Your task to perform on an android device: toggle data saver in the chrome app Image 0: 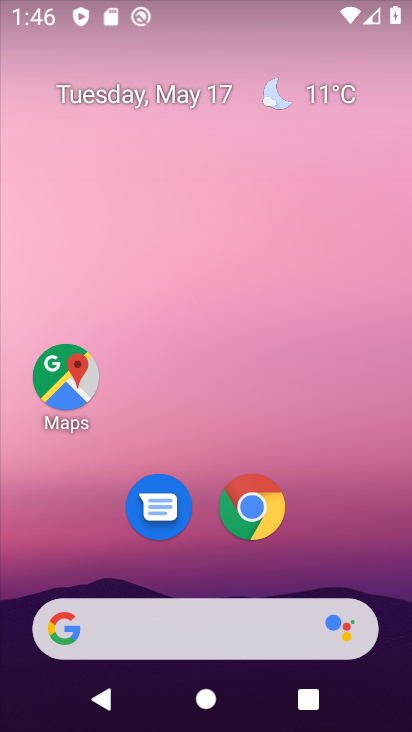
Step 0: click (259, 492)
Your task to perform on an android device: toggle data saver in the chrome app Image 1: 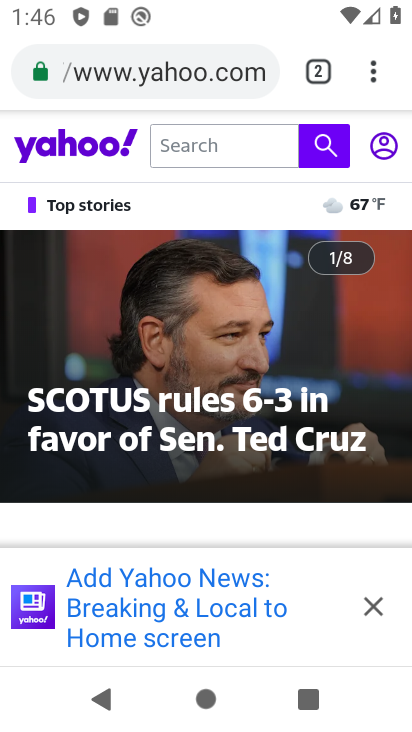
Step 1: click (377, 67)
Your task to perform on an android device: toggle data saver in the chrome app Image 2: 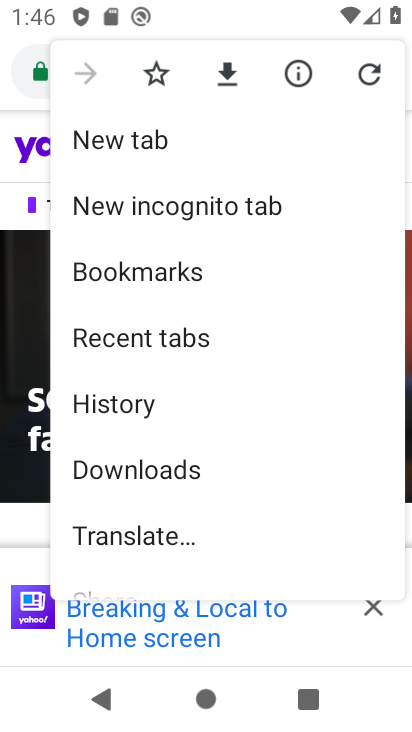
Step 2: drag from (124, 560) to (170, 185)
Your task to perform on an android device: toggle data saver in the chrome app Image 3: 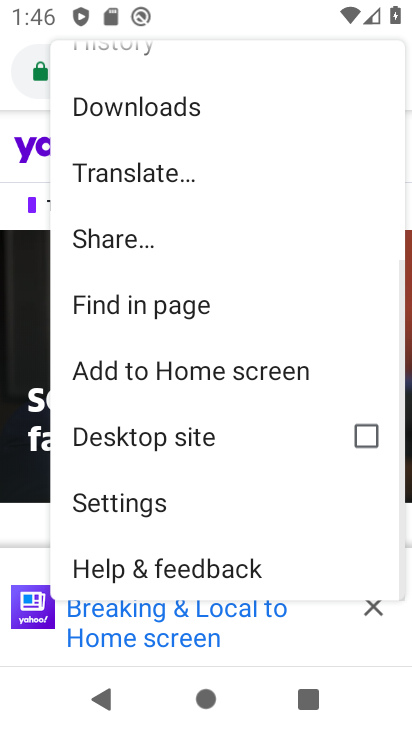
Step 3: click (91, 505)
Your task to perform on an android device: toggle data saver in the chrome app Image 4: 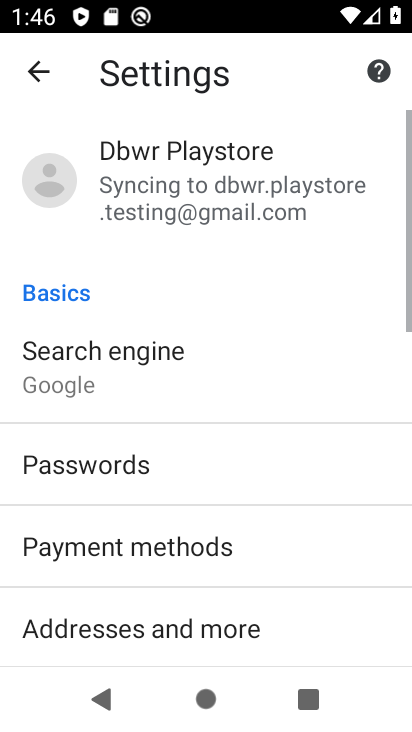
Step 4: drag from (91, 505) to (210, 130)
Your task to perform on an android device: toggle data saver in the chrome app Image 5: 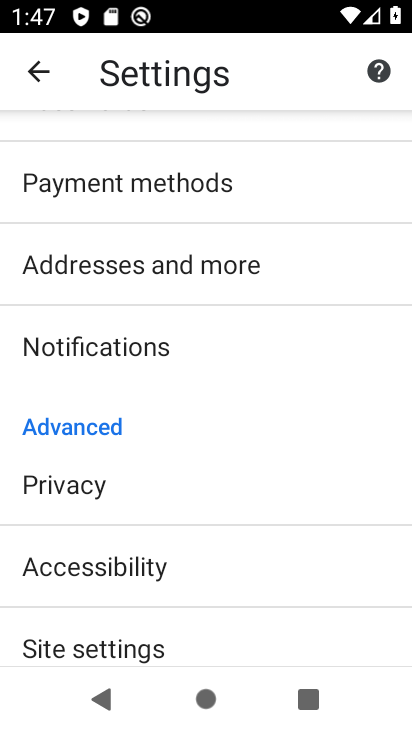
Step 5: drag from (113, 561) to (237, 280)
Your task to perform on an android device: toggle data saver in the chrome app Image 6: 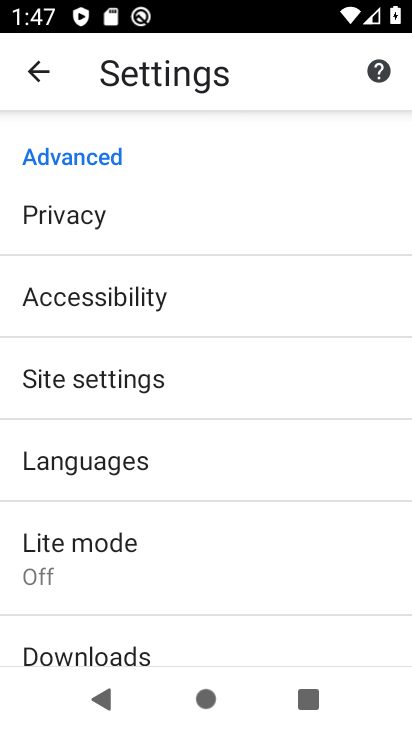
Step 6: click (129, 578)
Your task to perform on an android device: toggle data saver in the chrome app Image 7: 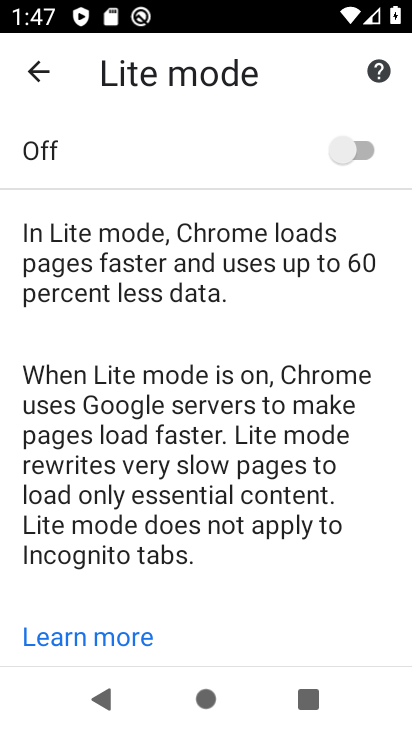
Step 7: click (366, 152)
Your task to perform on an android device: toggle data saver in the chrome app Image 8: 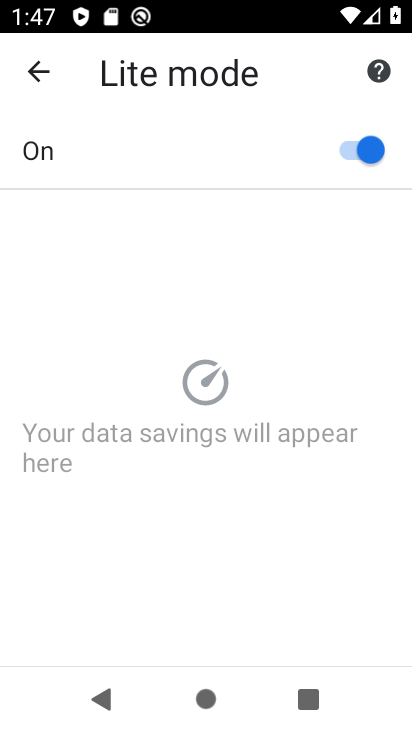
Step 8: click (366, 152)
Your task to perform on an android device: toggle data saver in the chrome app Image 9: 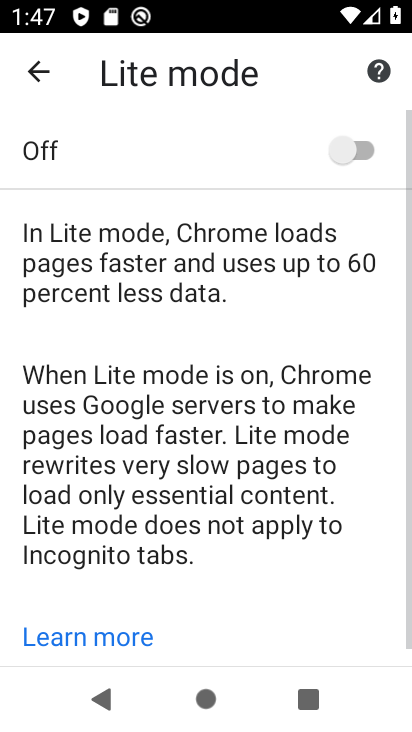
Step 9: task complete